Your task to perform on an android device: turn on bluetooth scan Image 0: 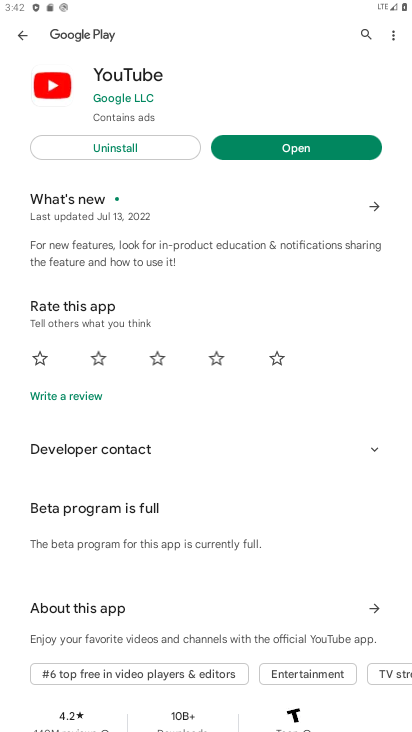
Step 0: press home button
Your task to perform on an android device: turn on bluetooth scan Image 1: 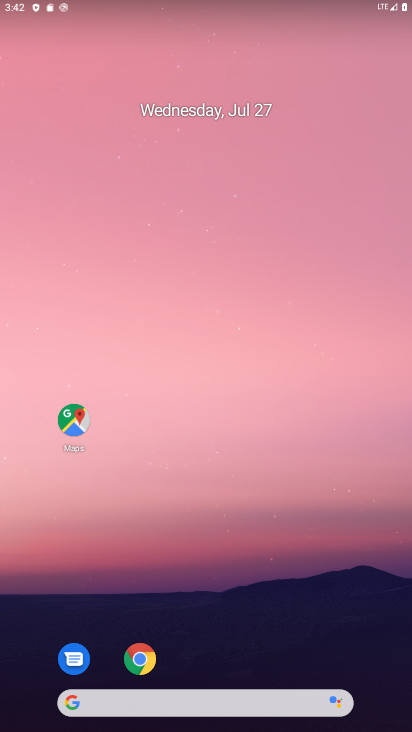
Step 1: drag from (237, 380) to (246, 28)
Your task to perform on an android device: turn on bluetooth scan Image 2: 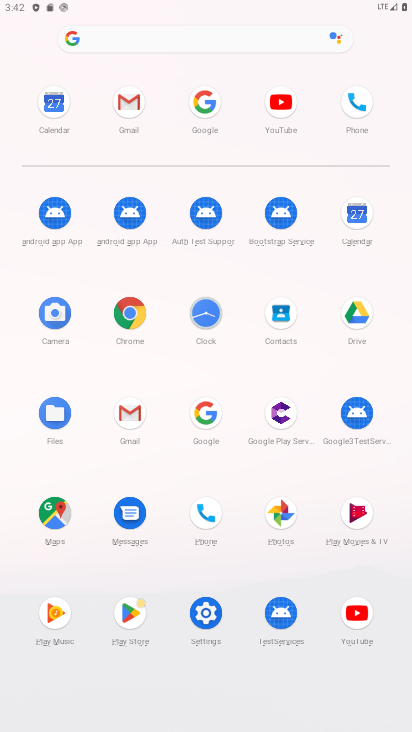
Step 2: click (200, 608)
Your task to perform on an android device: turn on bluetooth scan Image 3: 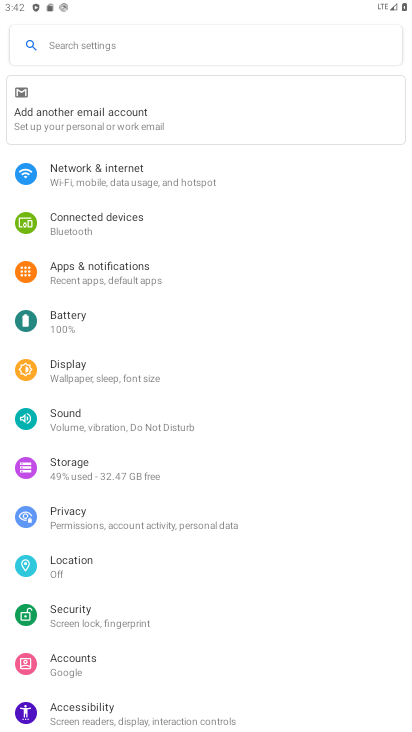
Step 3: click (86, 561)
Your task to perform on an android device: turn on bluetooth scan Image 4: 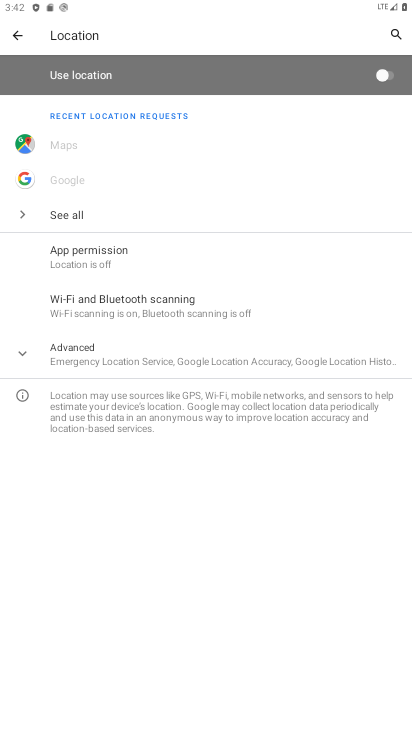
Step 4: click (129, 310)
Your task to perform on an android device: turn on bluetooth scan Image 5: 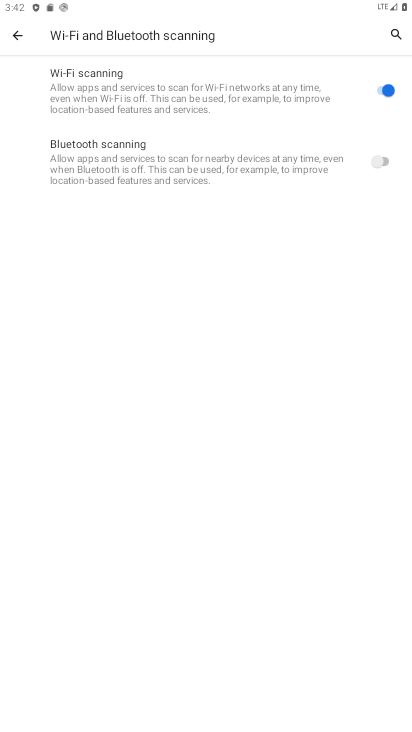
Step 5: click (367, 168)
Your task to perform on an android device: turn on bluetooth scan Image 6: 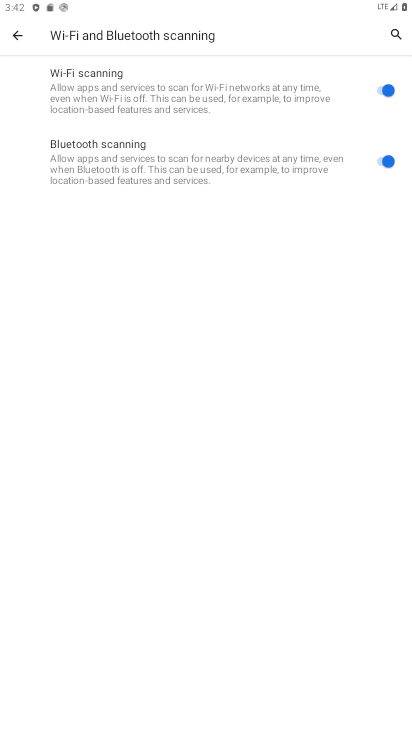
Step 6: task complete